Your task to perform on an android device: When is my next meeting? Image 0: 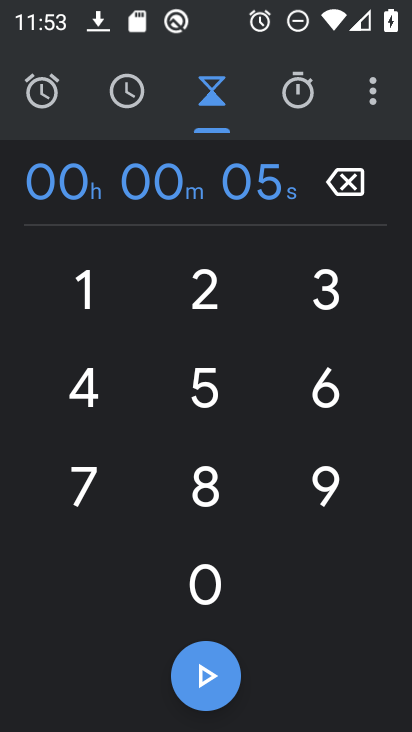
Step 0: press home button
Your task to perform on an android device: When is my next meeting? Image 1: 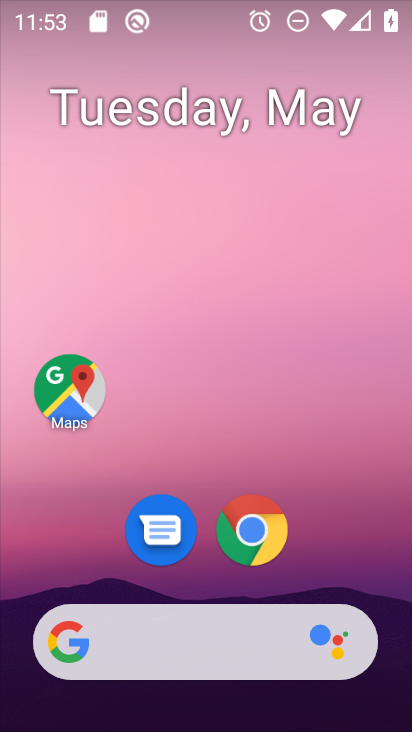
Step 1: drag from (327, 532) to (287, 160)
Your task to perform on an android device: When is my next meeting? Image 2: 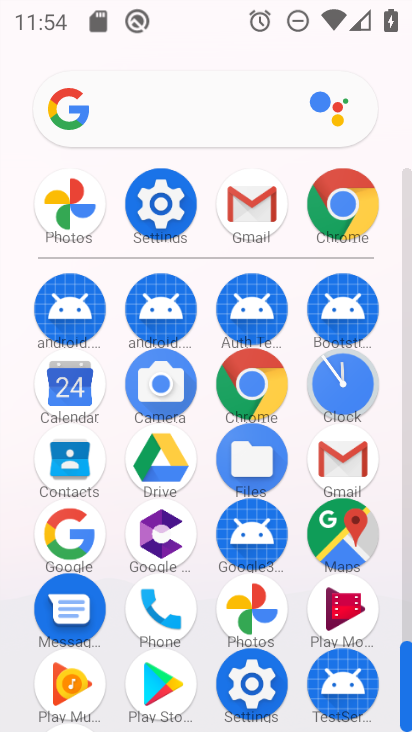
Step 2: click (60, 386)
Your task to perform on an android device: When is my next meeting? Image 3: 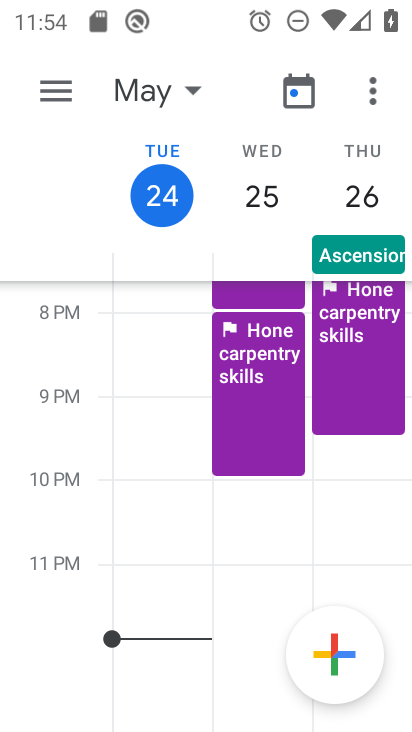
Step 3: task complete